Your task to perform on an android device: turn off improve location accuracy Image 0: 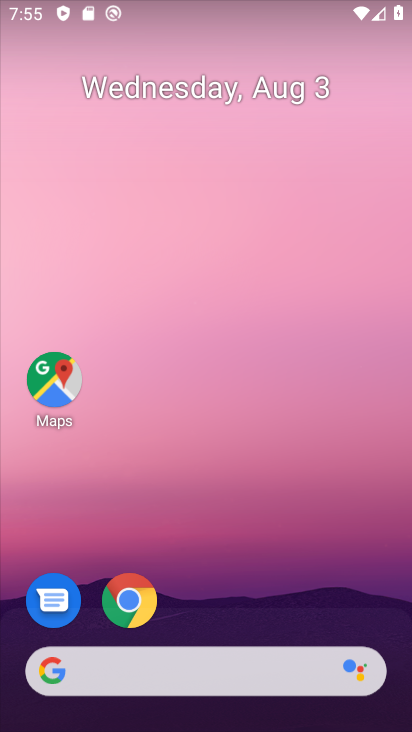
Step 0: drag from (253, 609) to (164, 0)
Your task to perform on an android device: turn off improve location accuracy Image 1: 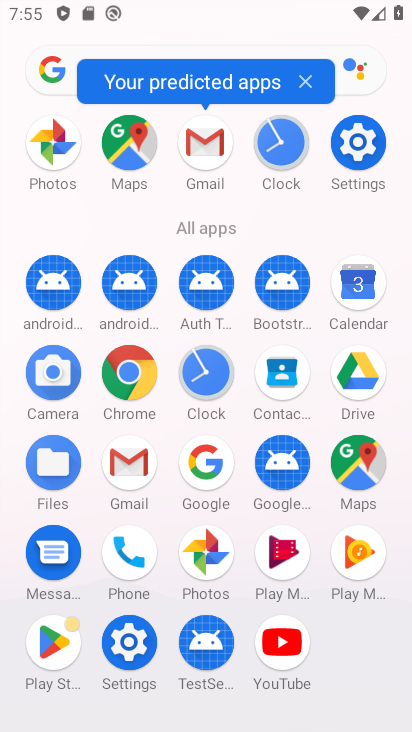
Step 1: click (132, 651)
Your task to perform on an android device: turn off improve location accuracy Image 2: 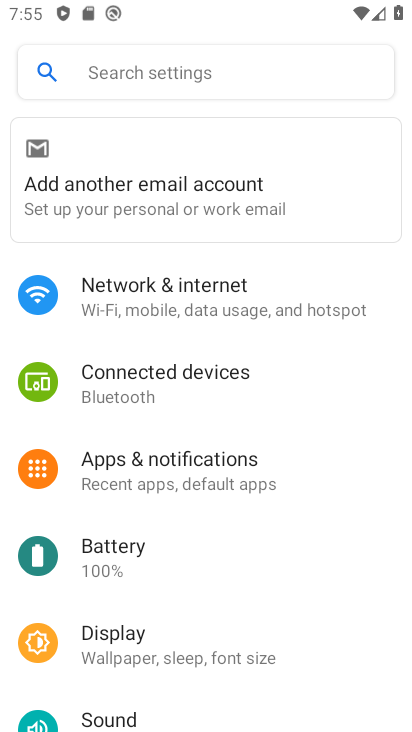
Step 2: drag from (152, 648) to (187, 359)
Your task to perform on an android device: turn off improve location accuracy Image 3: 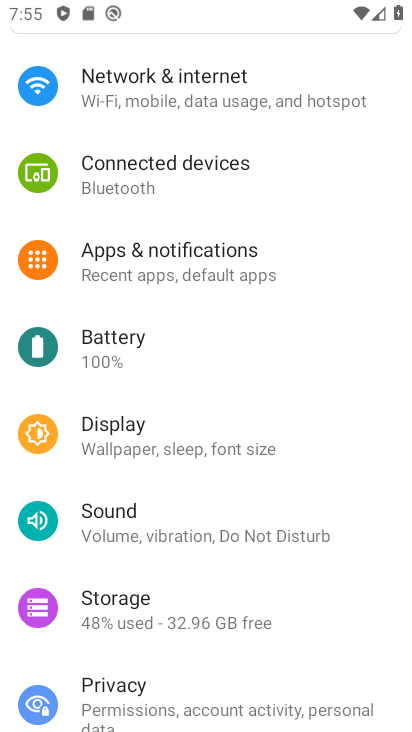
Step 3: drag from (142, 634) to (150, 323)
Your task to perform on an android device: turn off improve location accuracy Image 4: 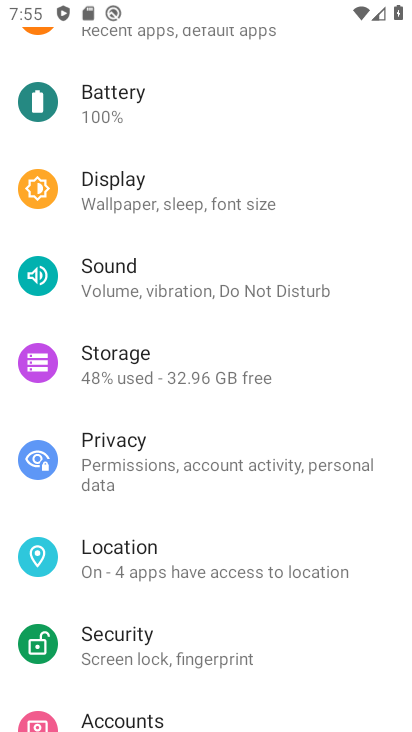
Step 4: click (149, 567)
Your task to perform on an android device: turn off improve location accuracy Image 5: 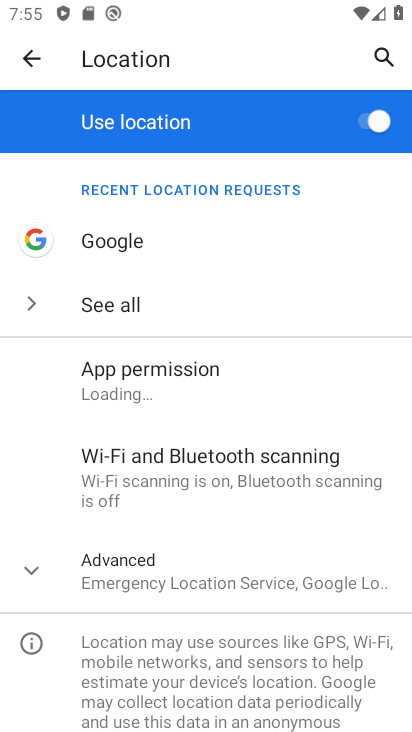
Step 5: click (146, 564)
Your task to perform on an android device: turn off improve location accuracy Image 6: 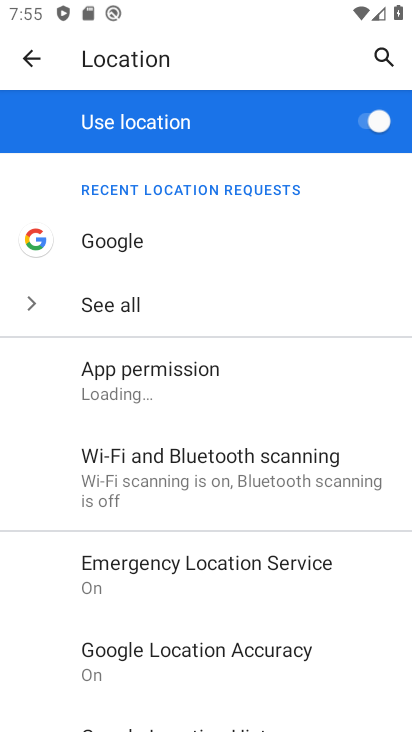
Step 6: drag from (172, 567) to (179, 468)
Your task to perform on an android device: turn off improve location accuracy Image 7: 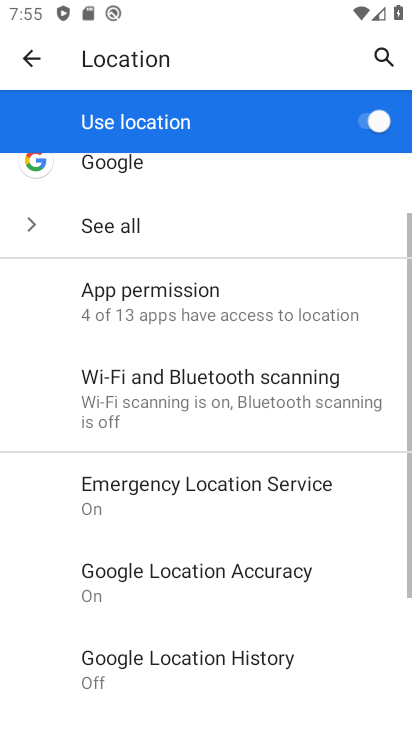
Step 7: click (158, 586)
Your task to perform on an android device: turn off improve location accuracy Image 8: 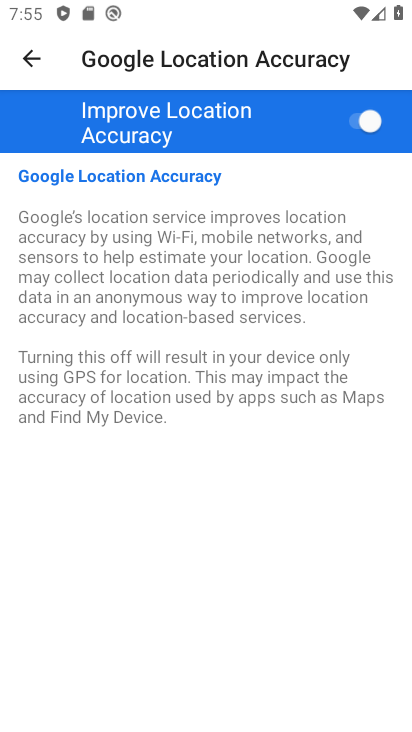
Step 8: click (328, 109)
Your task to perform on an android device: turn off improve location accuracy Image 9: 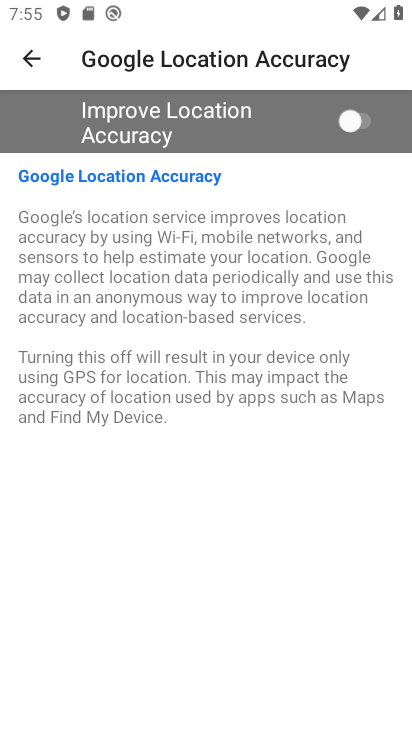
Step 9: task complete